Your task to perform on an android device: Look up the best rated bike seats on Target Image 0: 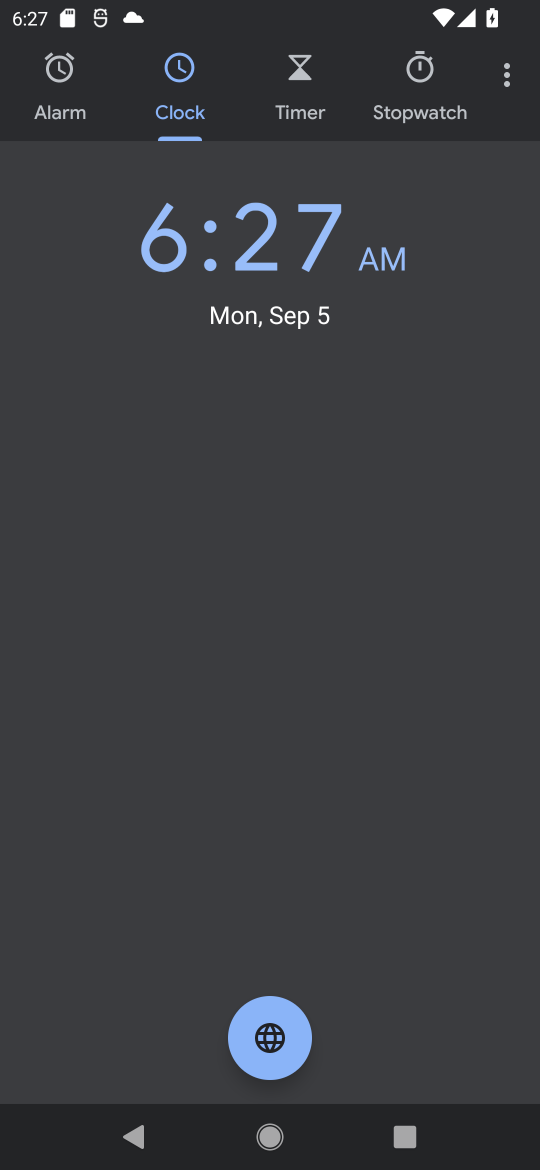
Step 0: press home button
Your task to perform on an android device: Look up the best rated bike seats on Target Image 1: 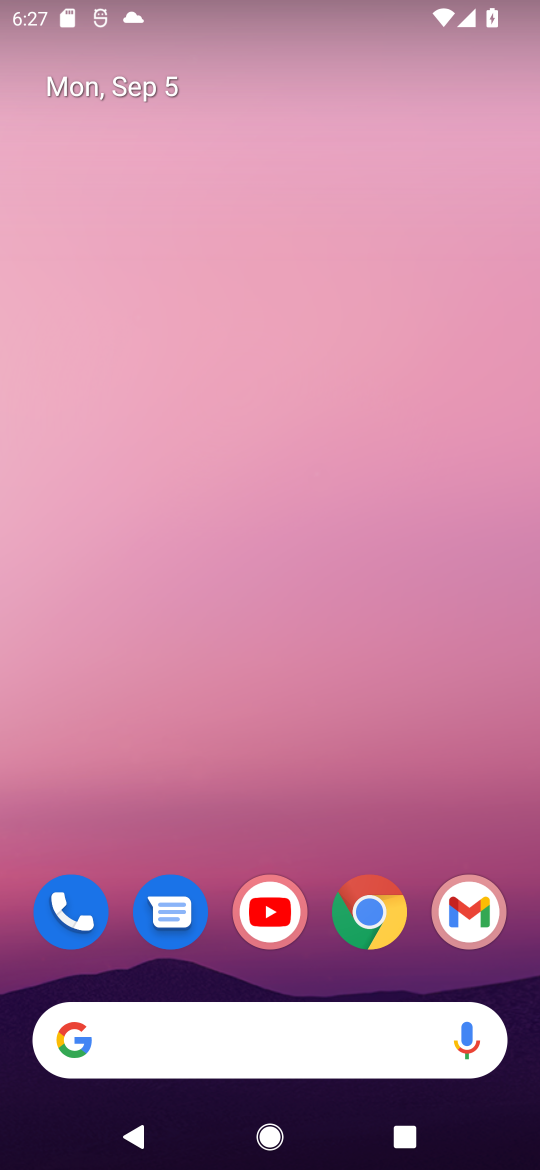
Step 1: click (370, 910)
Your task to perform on an android device: Look up the best rated bike seats on Target Image 2: 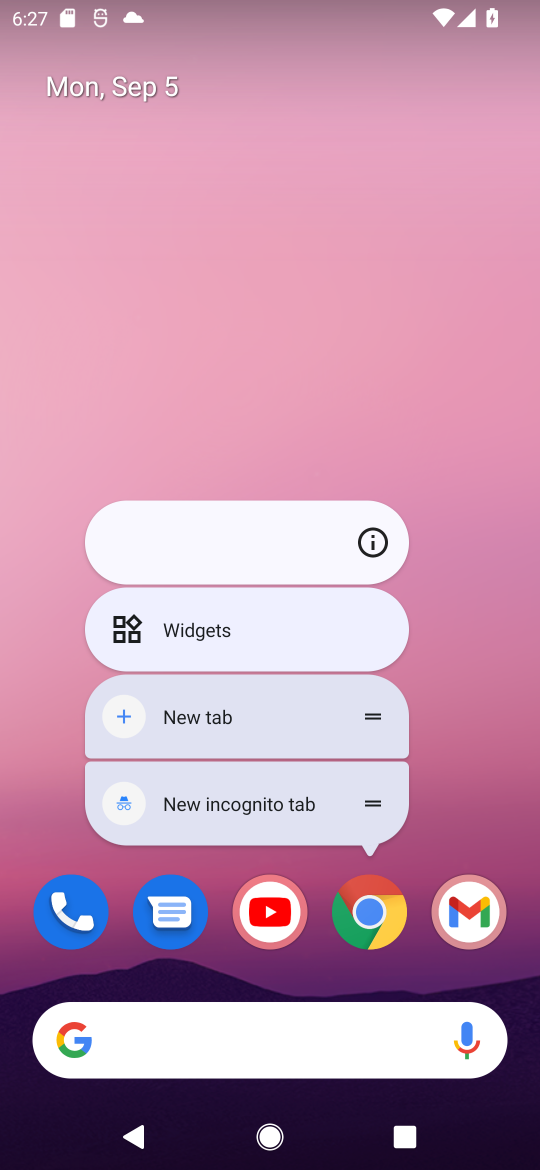
Step 2: click (370, 910)
Your task to perform on an android device: Look up the best rated bike seats on Target Image 3: 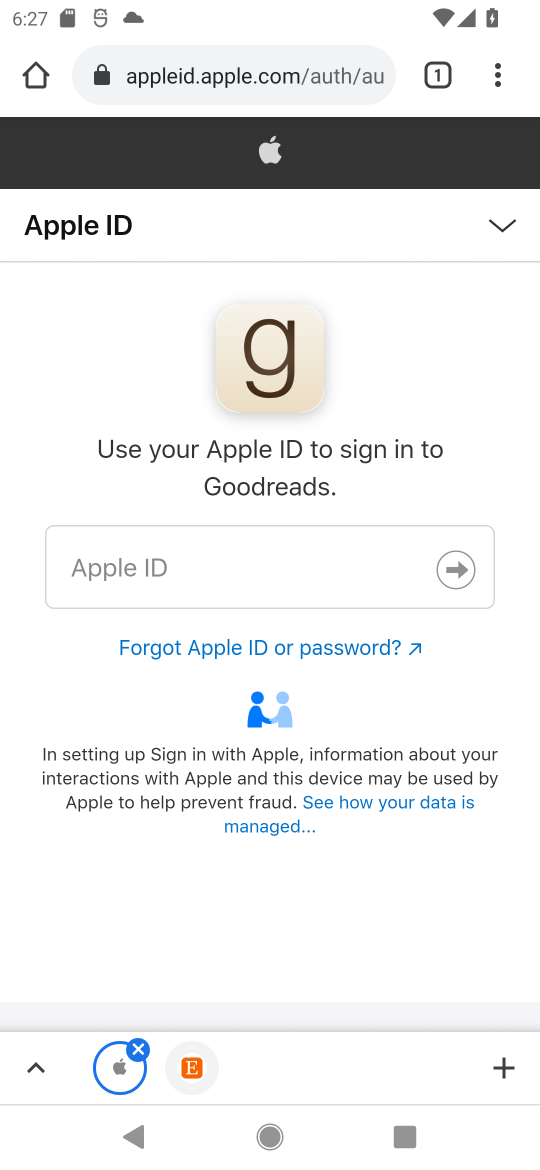
Step 3: click (250, 67)
Your task to perform on an android device: Look up the best rated bike seats on Target Image 4: 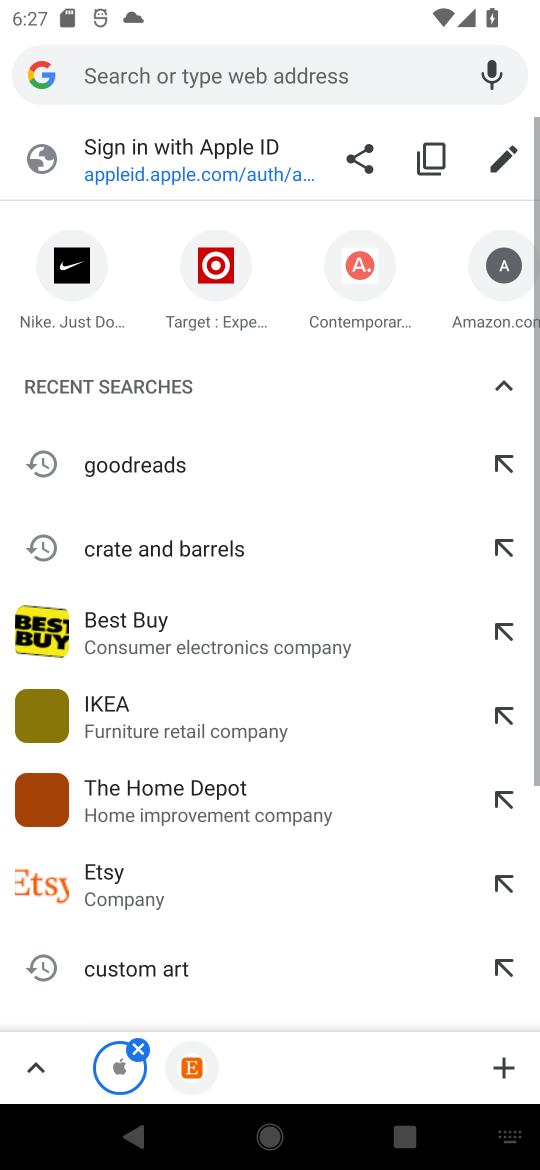
Step 4: click (250, 67)
Your task to perform on an android device: Look up the best rated bike seats on Target Image 5: 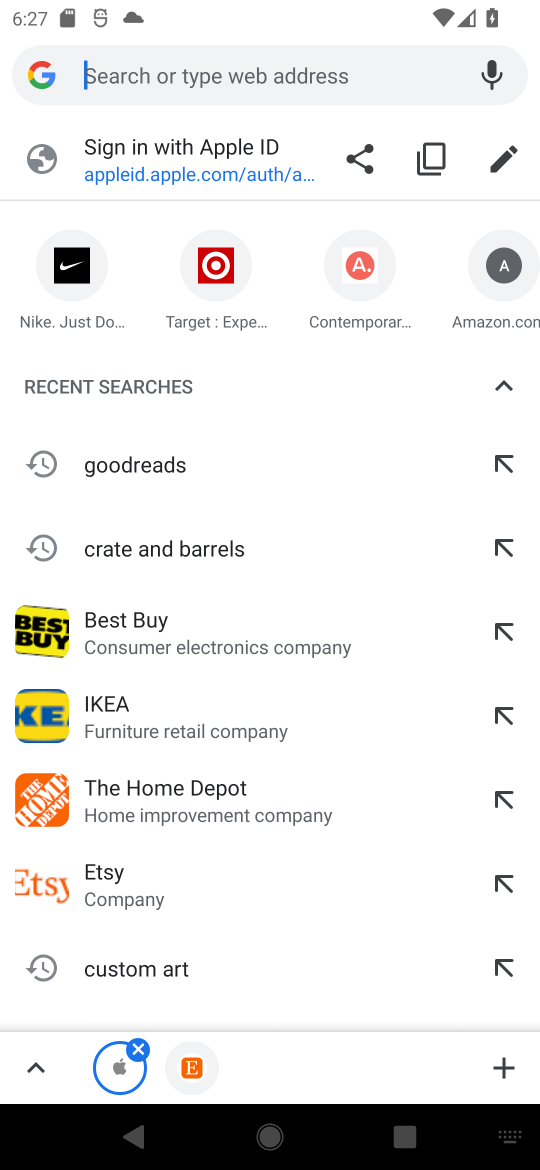
Step 5: type "target"
Your task to perform on an android device: Look up the best rated bike seats on Target Image 6: 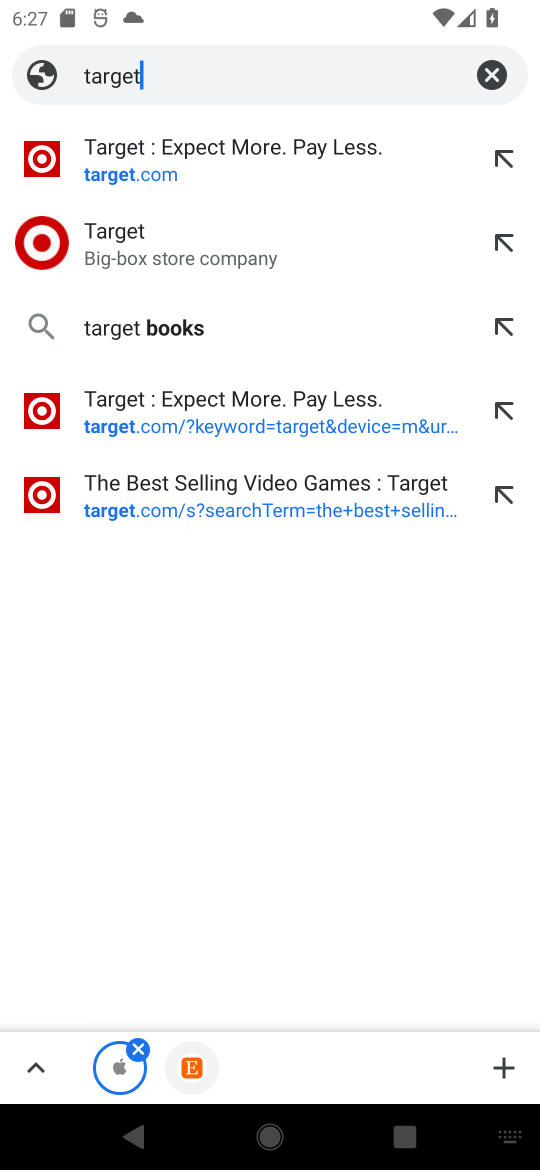
Step 6: click (143, 158)
Your task to perform on an android device: Look up the best rated bike seats on Target Image 7: 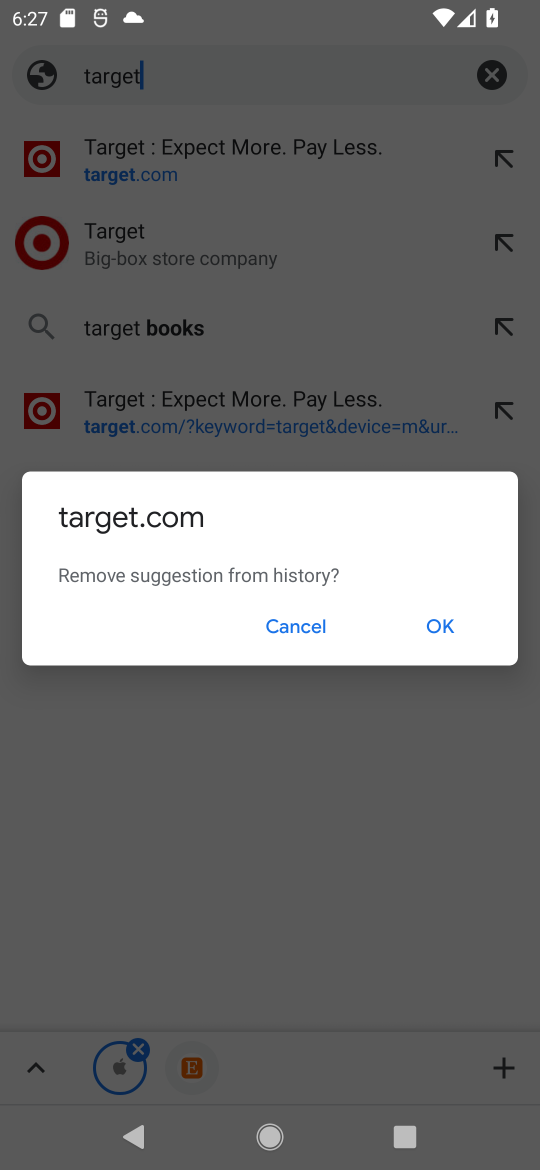
Step 7: click (296, 636)
Your task to perform on an android device: Look up the best rated bike seats on Target Image 8: 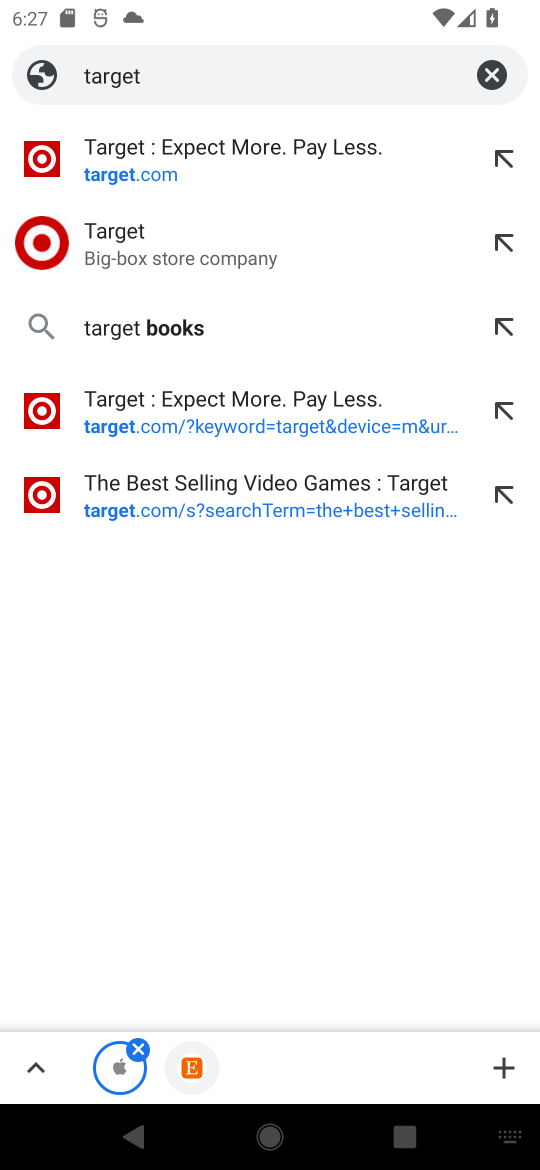
Step 8: click (209, 155)
Your task to perform on an android device: Look up the best rated bike seats on Target Image 9: 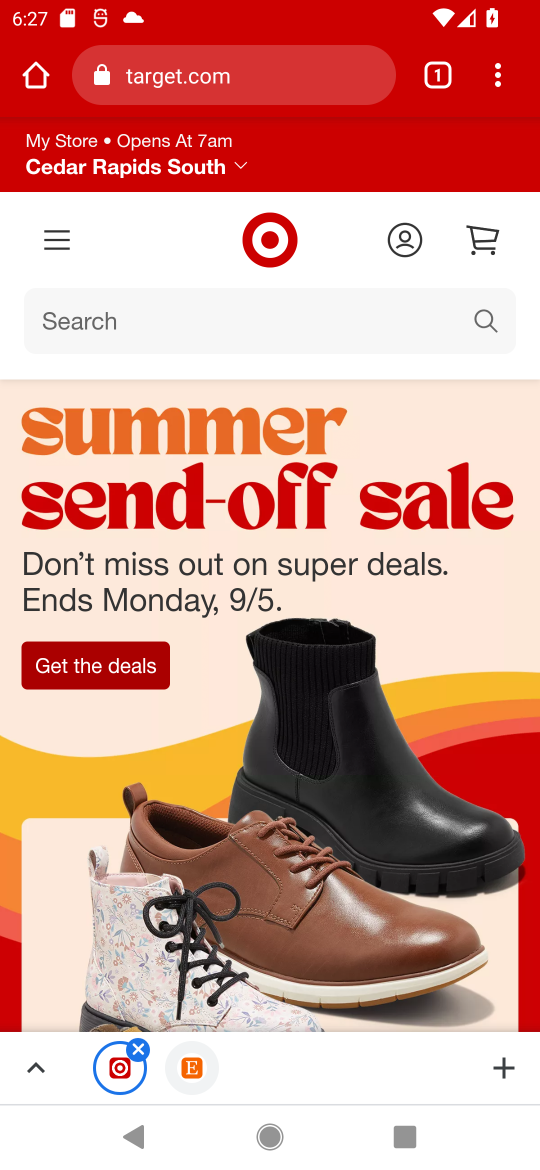
Step 9: click (316, 322)
Your task to perform on an android device: Look up the best rated bike seats on Target Image 10: 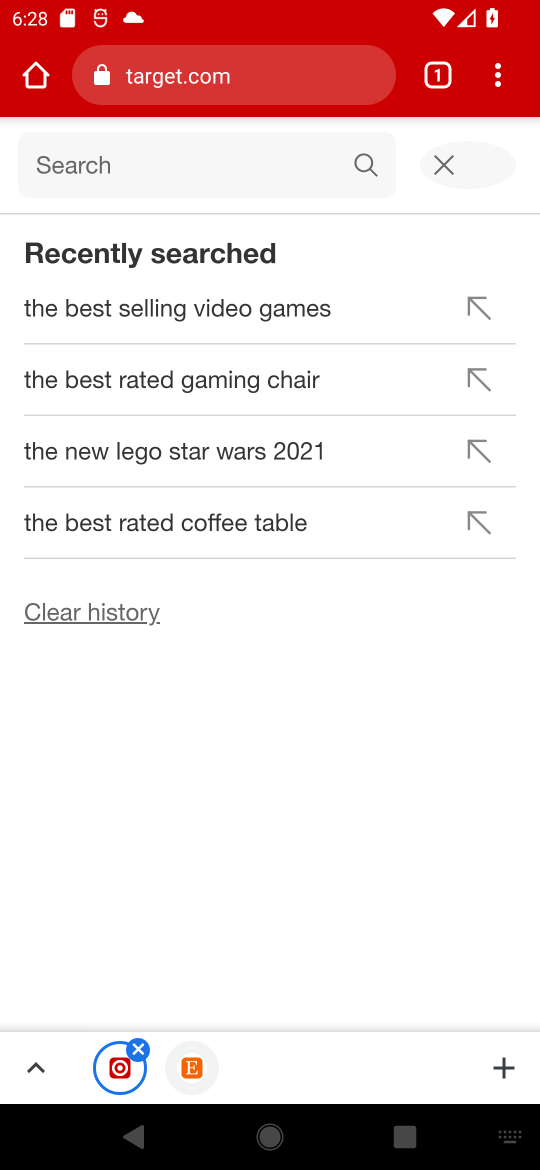
Step 10: type "the best rated bike seats"
Your task to perform on an android device: Look up the best rated bike seats on Target Image 11: 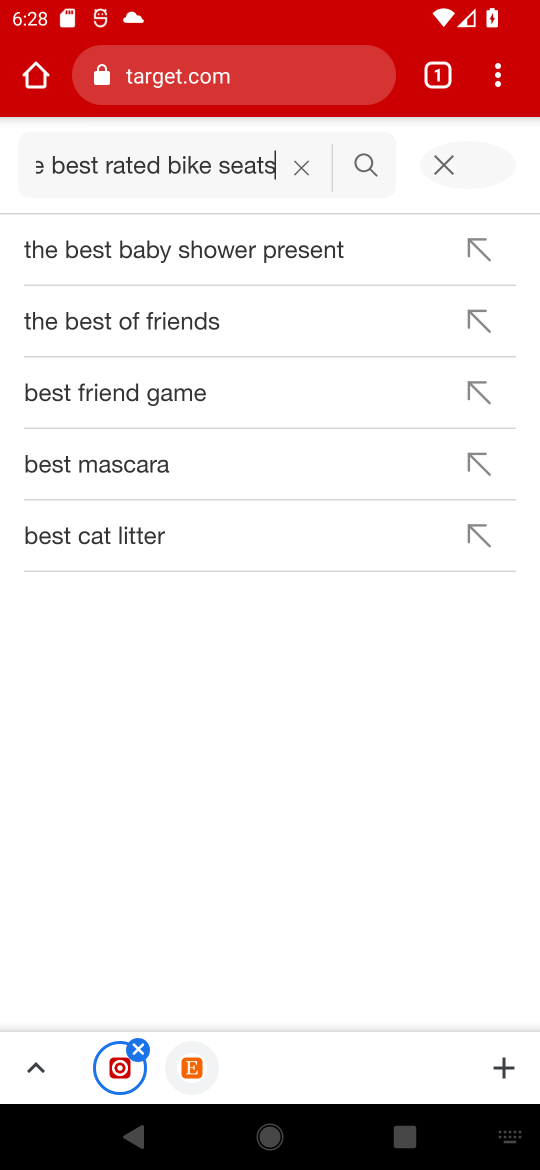
Step 11: click (377, 168)
Your task to perform on an android device: Look up the best rated bike seats on Target Image 12: 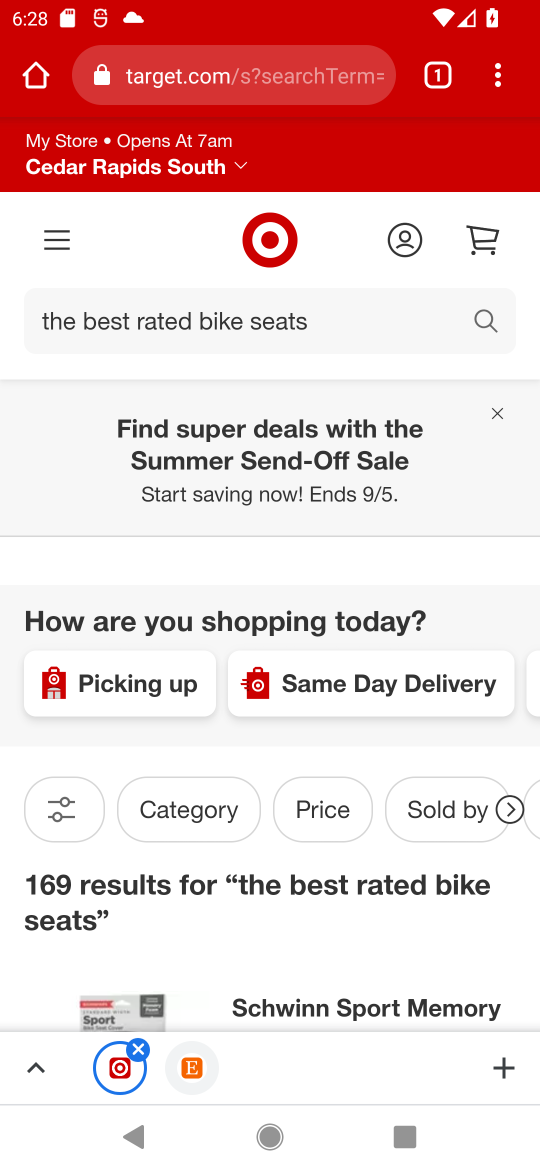
Step 12: task complete